Your task to perform on an android device: Open calendar and show me the third week of next month Image 0: 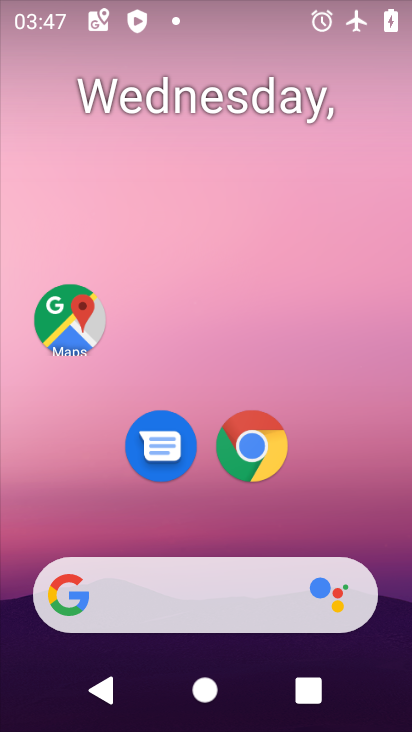
Step 0: drag from (218, 515) to (218, 157)
Your task to perform on an android device: Open calendar and show me the third week of next month Image 1: 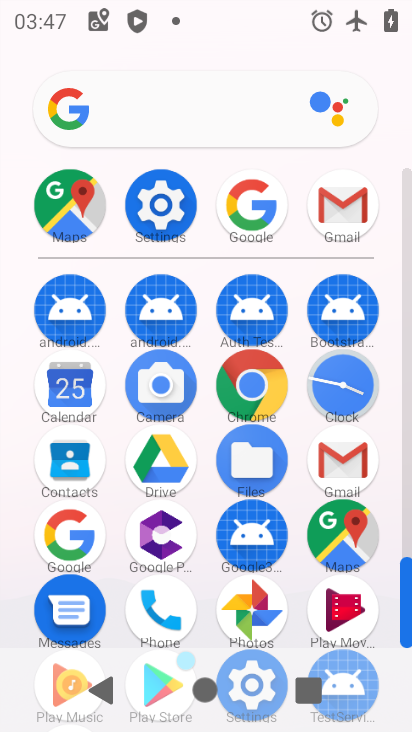
Step 1: click (67, 384)
Your task to perform on an android device: Open calendar and show me the third week of next month Image 2: 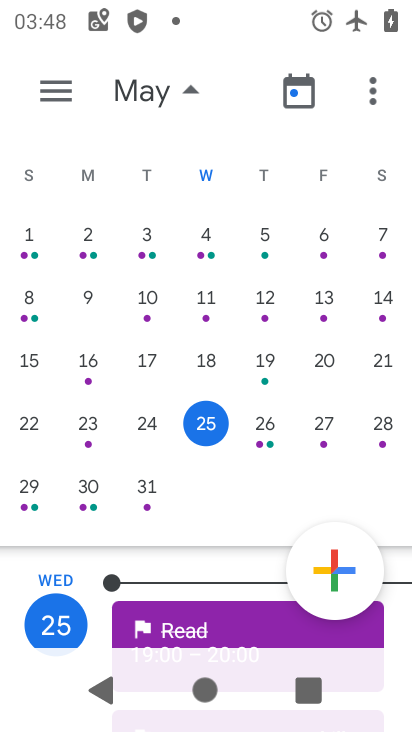
Step 2: drag from (320, 310) to (40, 314)
Your task to perform on an android device: Open calendar and show me the third week of next month Image 3: 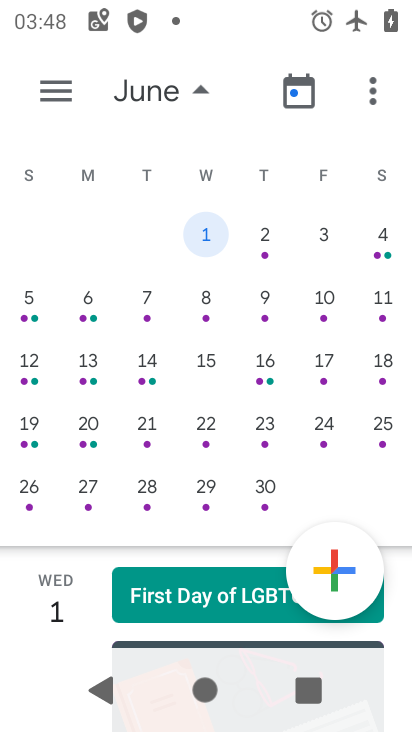
Step 3: click (39, 367)
Your task to perform on an android device: Open calendar and show me the third week of next month Image 4: 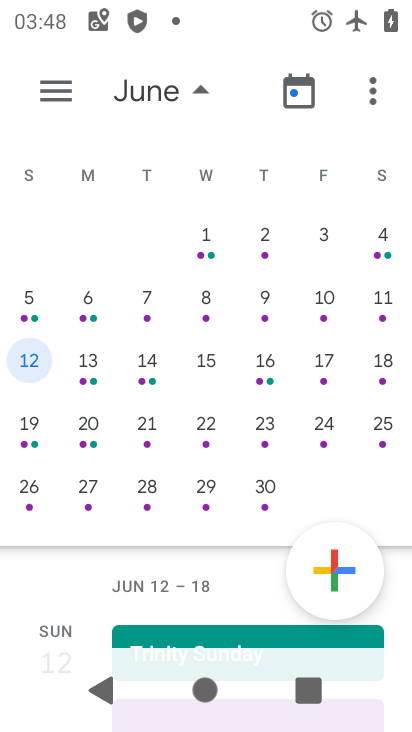
Step 4: task complete